Your task to perform on an android device: Open Youtube and go to "Your channel" Image 0: 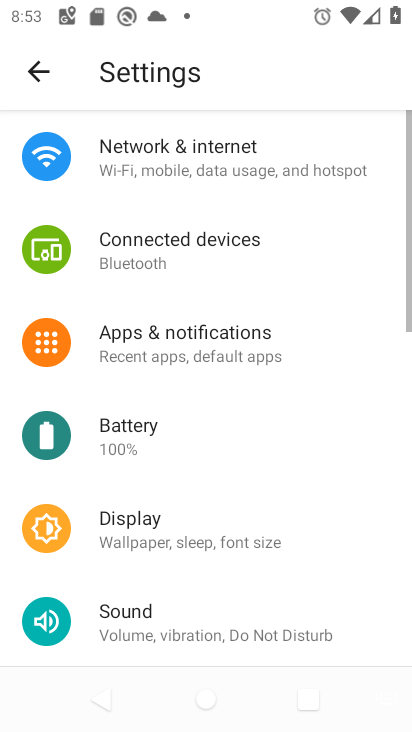
Step 0: press home button
Your task to perform on an android device: Open Youtube and go to "Your channel" Image 1: 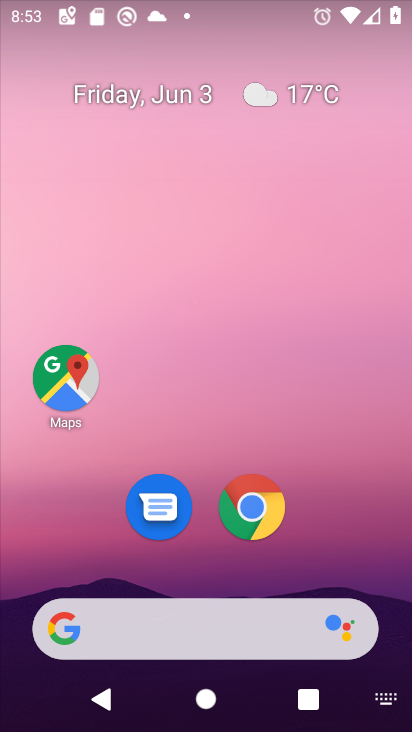
Step 1: drag from (345, 547) to (169, 25)
Your task to perform on an android device: Open Youtube and go to "Your channel" Image 2: 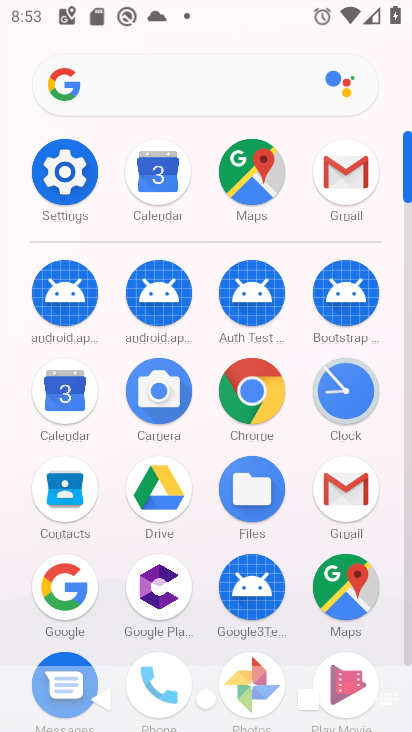
Step 2: drag from (293, 588) to (230, 97)
Your task to perform on an android device: Open Youtube and go to "Your channel" Image 3: 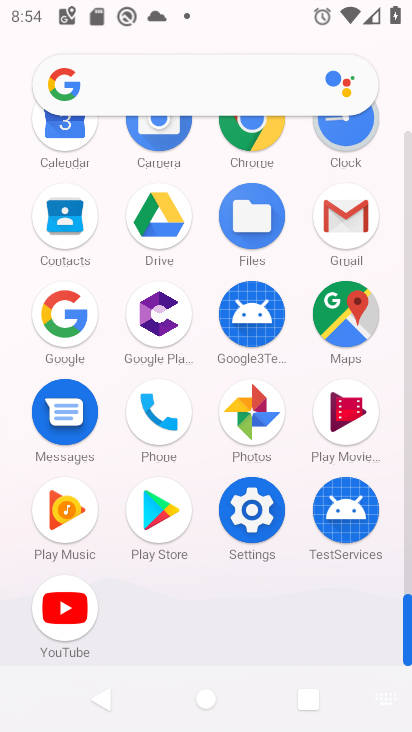
Step 3: click (61, 603)
Your task to perform on an android device: Open Youtube and go to "Your channel" Image 4: 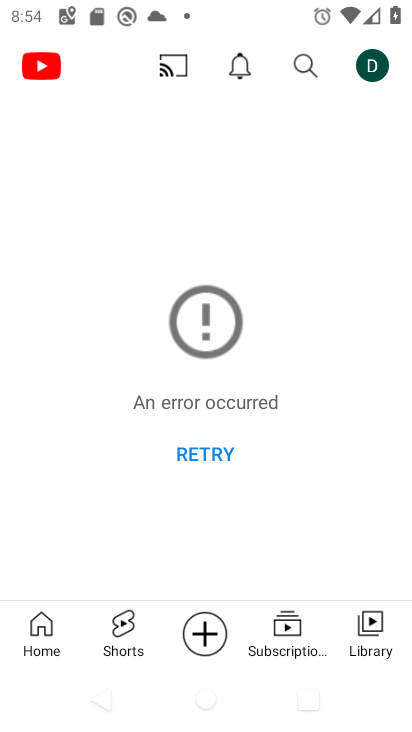
Step 4: click (367, 61)
Your task to perform on an android device: Open Youtube and go to "Your channel" Image 5: 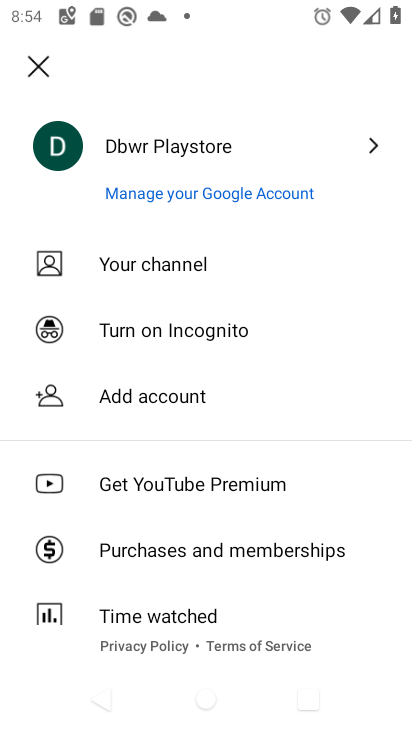
Step 5: click (146, 283)
Your task to perform on an android device: Open Youtube and go to "Your channel" Image 6: 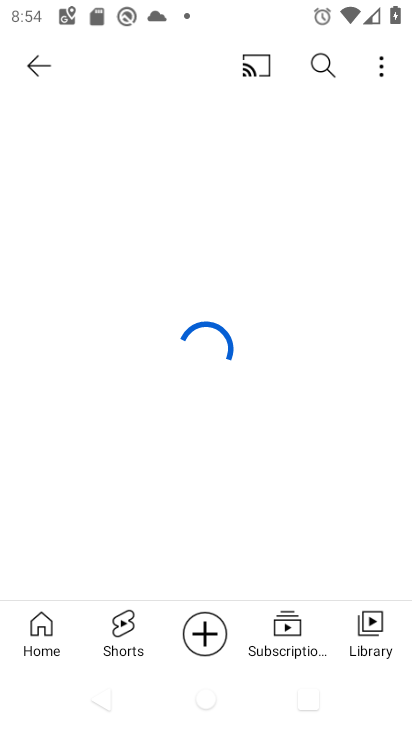
Step 6: task complete